Your task to perform on an android device: Show me popular videos on Youtube Image 0: 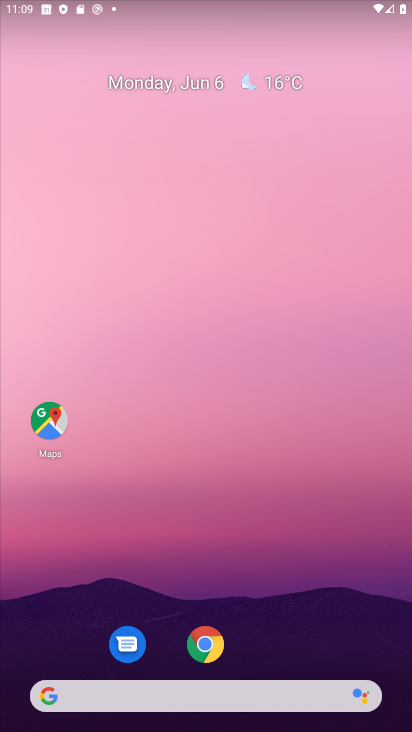
Step 0: drag from (305, 637) to (260, 121)
Your task to perform on an android device: Show me popular videos on Youtube Image 1: 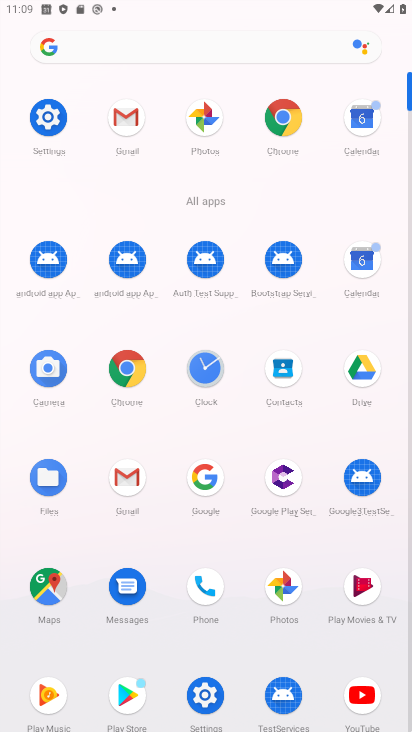
Step 1: click (369, 686)
Your task to perform on an android device: Show me popular videos on Youtube Image 2: 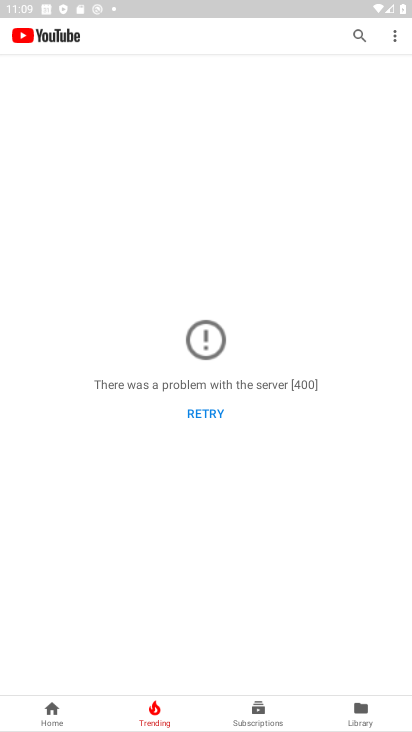
Step 2: task complete